Your task to perform on an android device: toggle notification dots Image 0: 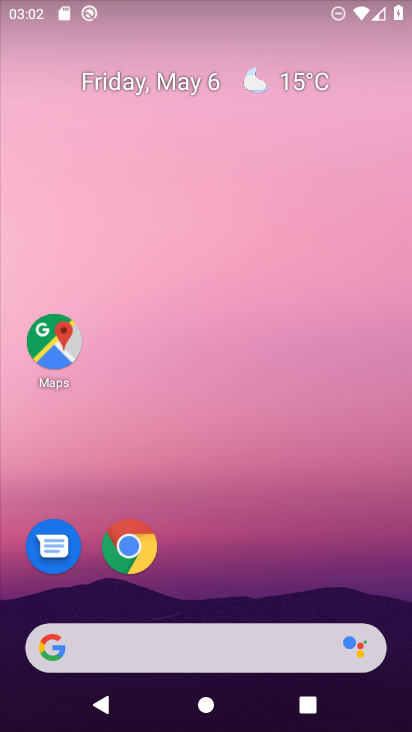
Step 0: drag from (236, 526) to (254, 75)
Your task to perform on an android device: toggle notification dots Image 1: 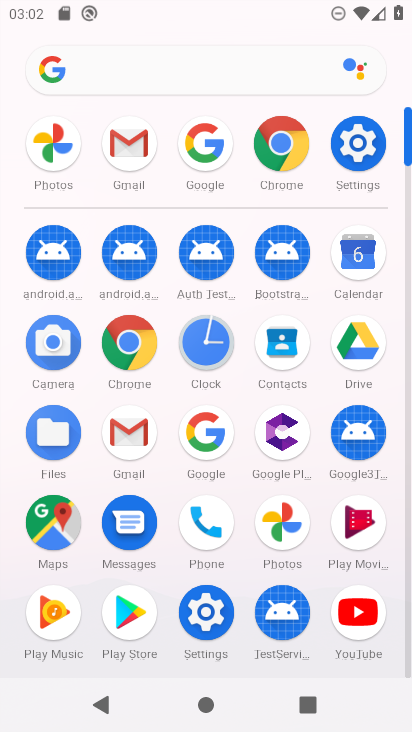
Step 1: click (203, 344)
Your task to perform on an android device: toggle notification dots Image 2: 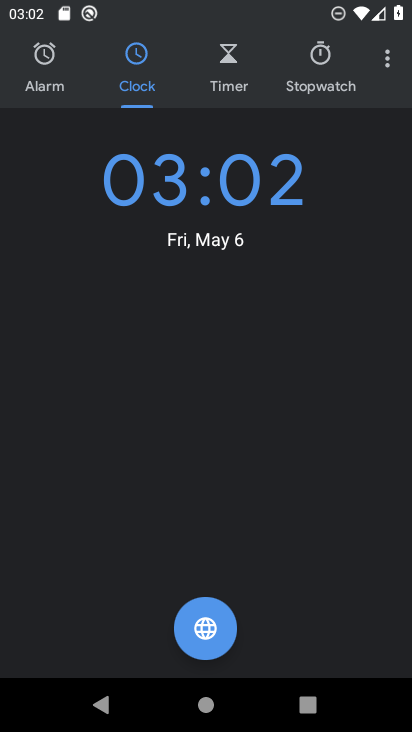
Step 2: click (233, 61)
Your task to perform on an android device: toggle notification dots Image 3: 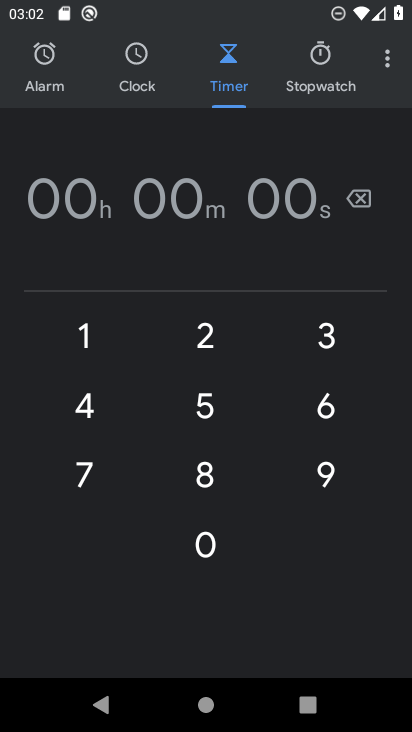
Step 3: click (82, 335)
Your task to perform on an android device: toggle notification dots Image 4: 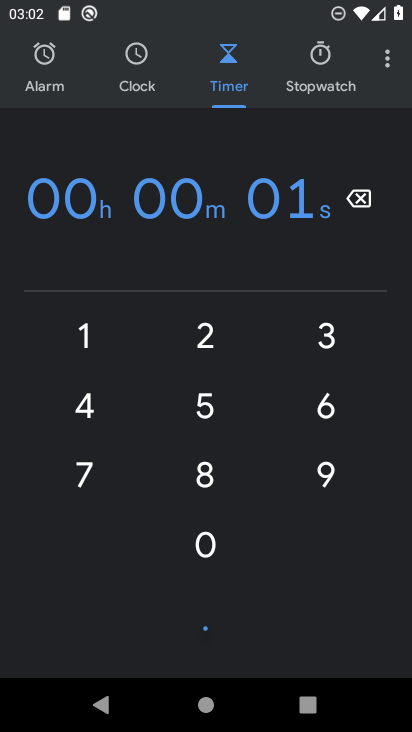
Step 4: click (216, 331)
Your task to perform on an android device: toggle notification dots Image 5: 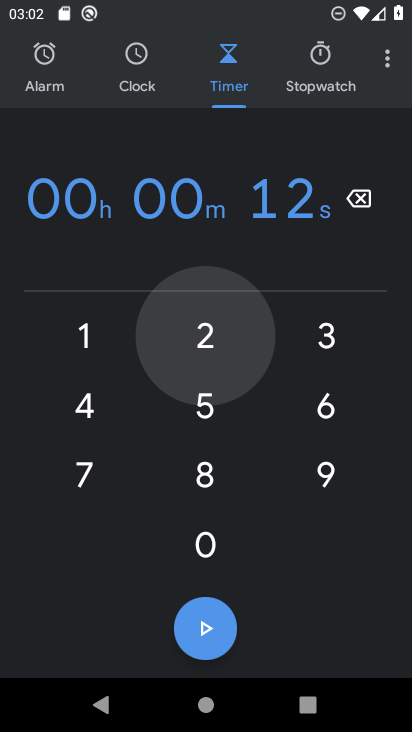
Step 5: click (333, 348)
Your task to perform on an android device: toggle notification dots Image 6: 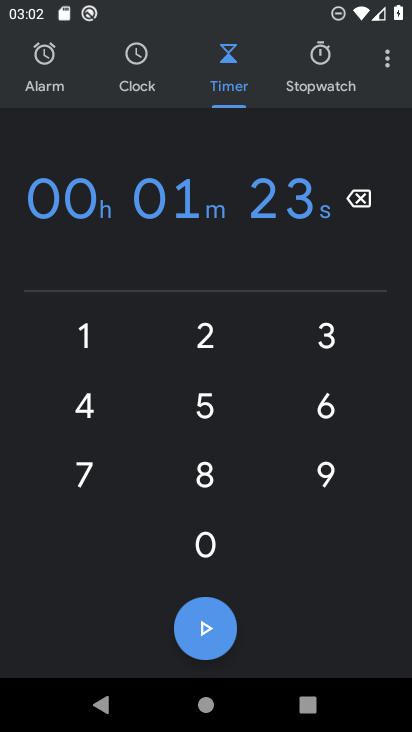
Step 6: click (227, 405)
Your task to perform on an android device: toggle notification dots Image 7: 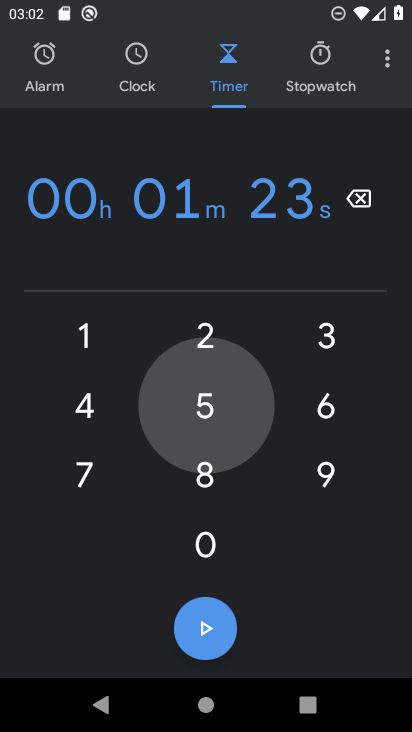
Step 7: click (320, 414)
Your task to perform on an android device: toggle notification dots Image 8: 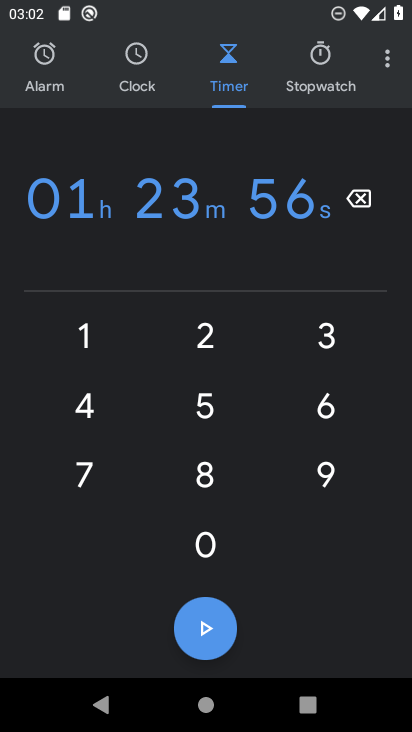
Step 8: click (203, 627)
Your task to perform on an android device: toggle notification dots Image 9: 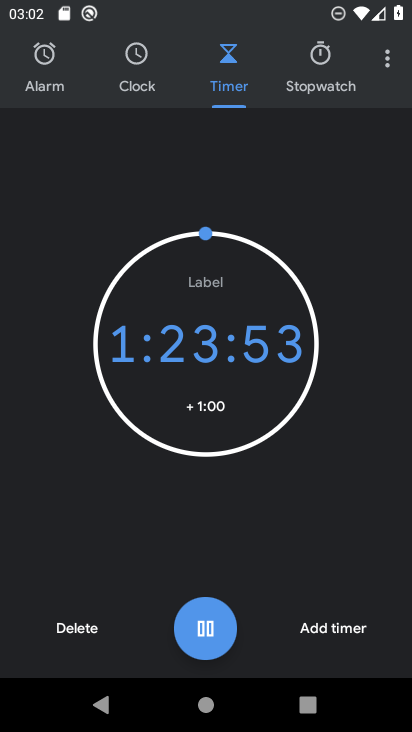
Step 9: task complete